Your task to perform on an android device: What's on my calendar tomorrow? Image 0: 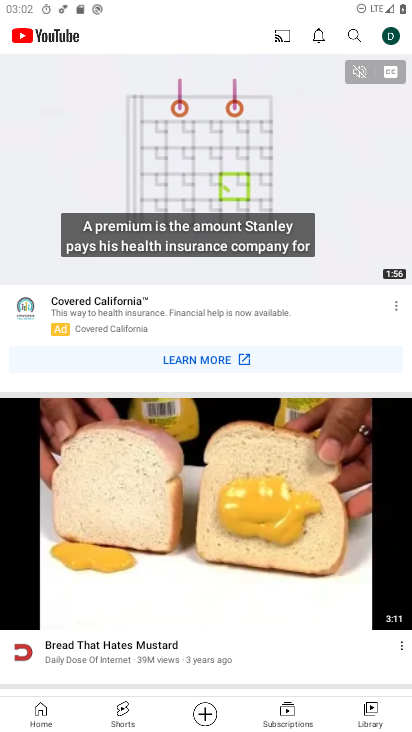
Step 0: press home button
Your task to perform on an android device: What's on my calendar tomorrow? Image 1: 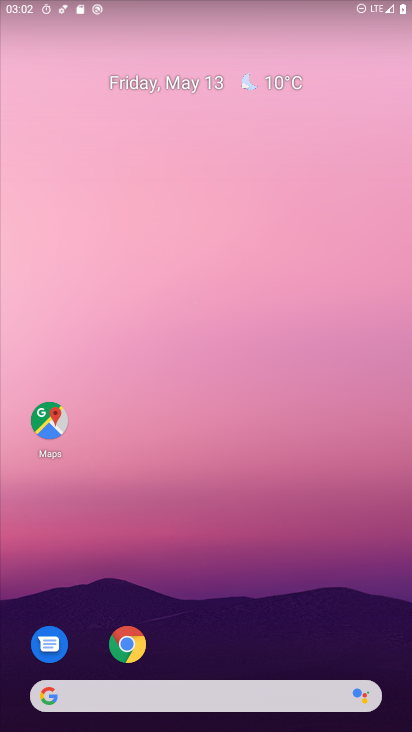
Step 1: drag from (247, 668) to (299, 0)
Your task to perform on an android device: What's on my calendar tomorrow? Image 2: 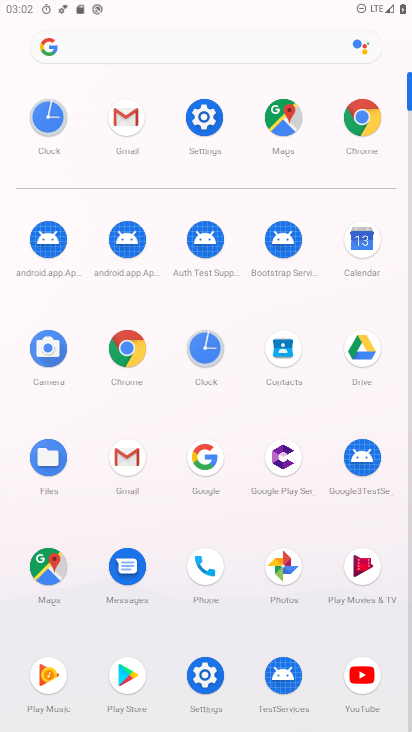
Step 2: click (366, 238)
Your task to perform on an android device: What's on my calendar tomorrow? Image 3: 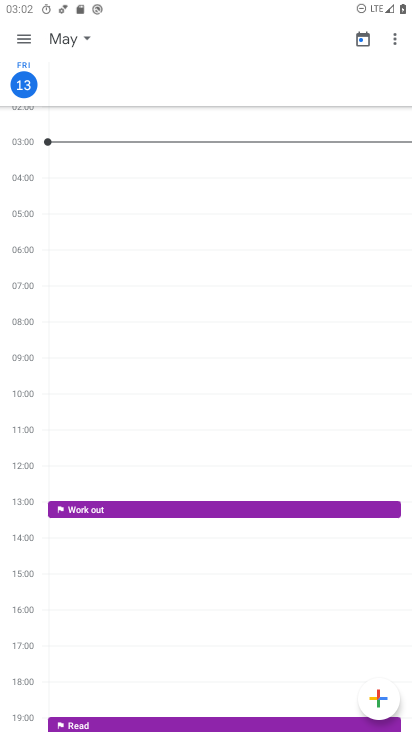
Step 3: click (82, 39)
Your task to perform on an android device: What's on my calendar tomorrow? Image 4: 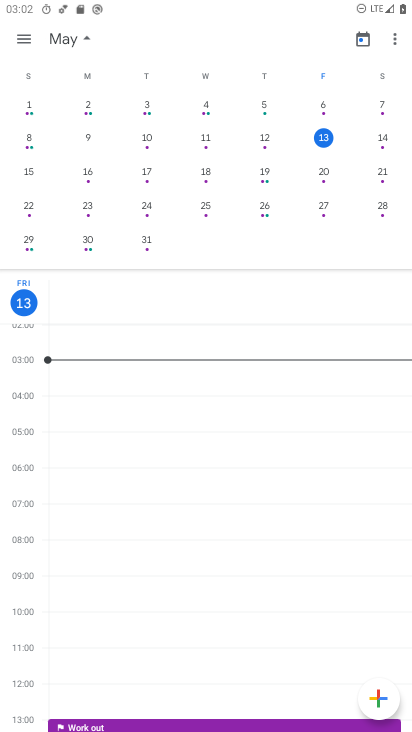
Step 4: click (380, 142)
Your task to perform on an android device: What's on my calendar tomorrow? Image 5: 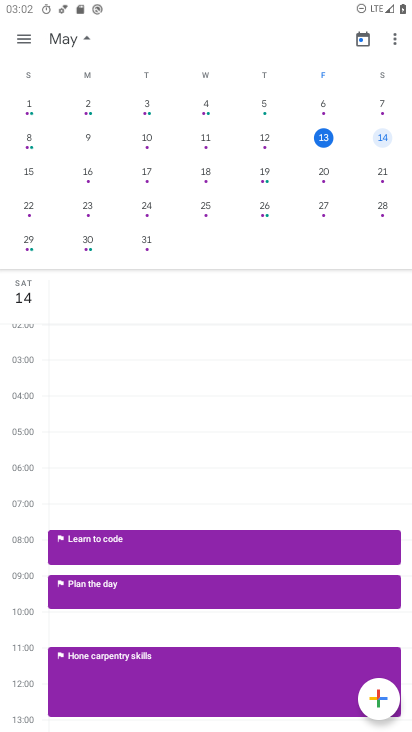
Step 5: task complete